Your task to perform on an android device: Open ESPN.com Image 0: 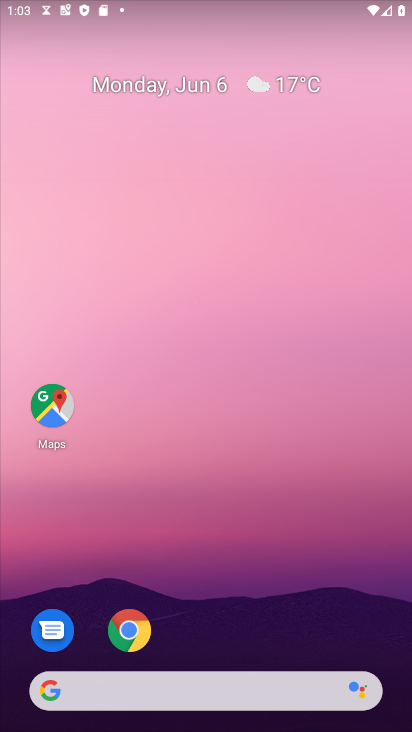
Step 0: click (114, 38)
Your task to perform on an android device: Open ESPN.com Image 1: 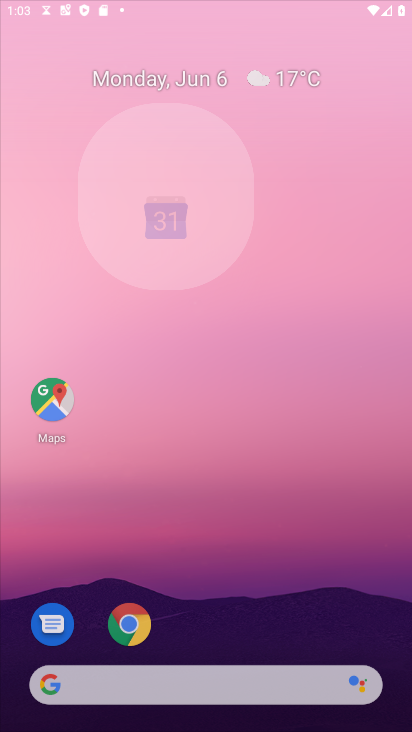
Step 1: drag from (279, 627) to (202, 120)
Your task to perform on an android device: Open ESPN.com Image 2: 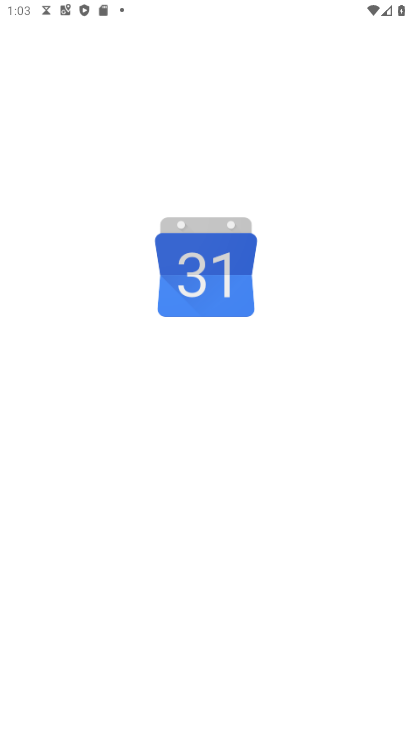
Step 2: drag from (306, 570) to (188, 58)
Your task to perform on an android device: Open ESPN.com Image 3: 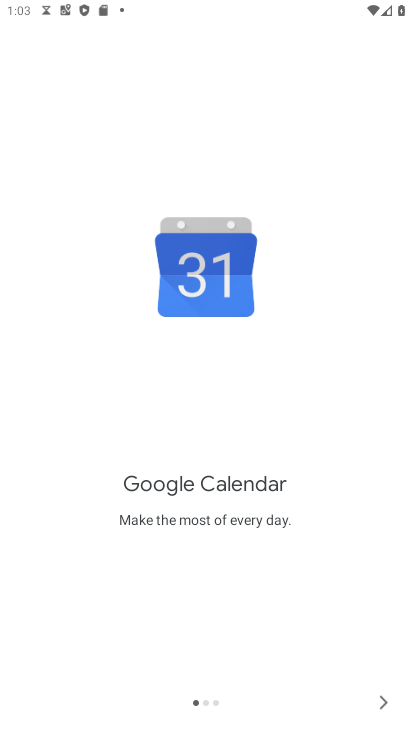
Step 3: click (378, 702)
Your task to perform on an android device: Open ESPN.com Image 4: 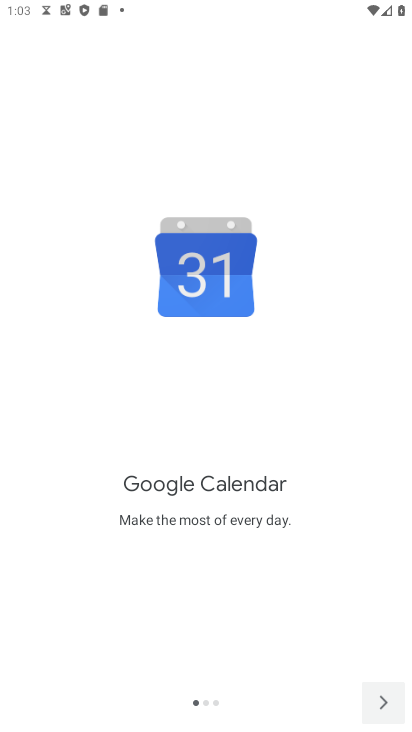
Step 4: click (379, 702)
Your task to perform on an android device: Open ESPN.com Image 5: 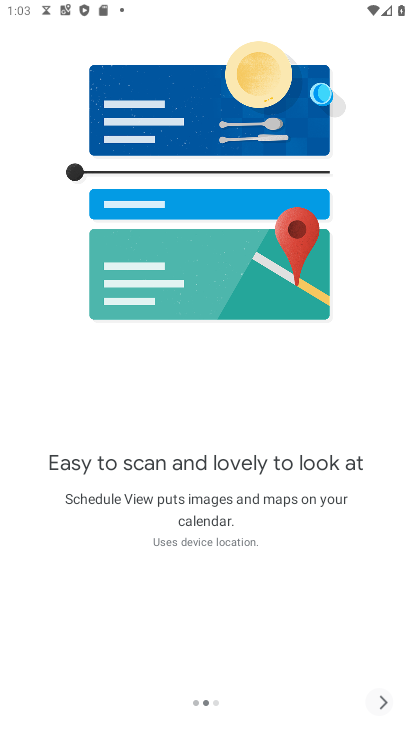
Step 5: click (379, 702)
Your task to perform on an android device: Open ESPN.com Image 6: 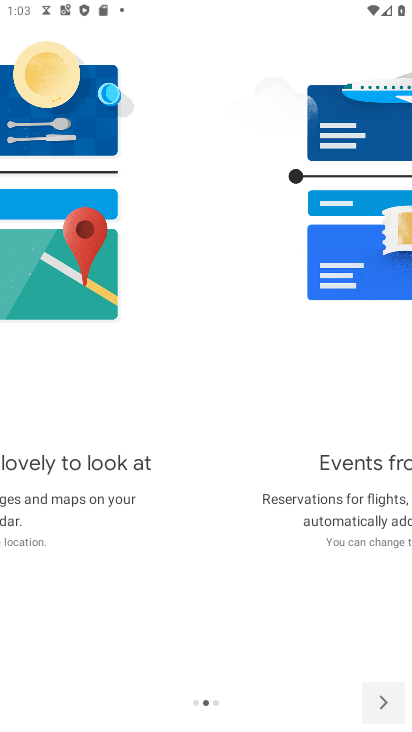
Step 6: click (380, 701)
Your task to perform on an android device: Open ESPN.com Image 7: 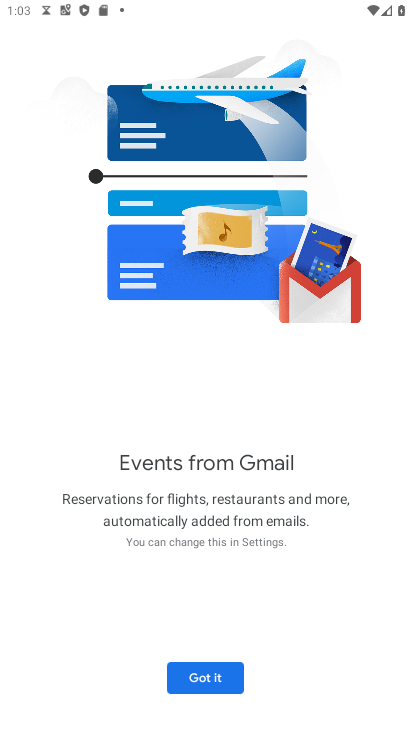
Step 7: click (383, 697)
Your task to perform on an android device: Open ESPN.com Image 8: 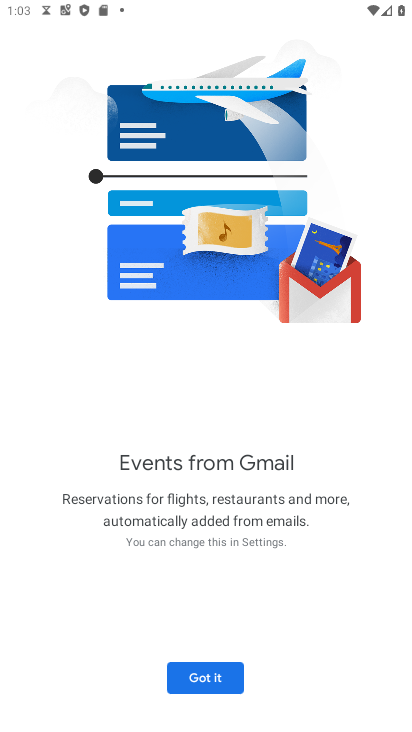
Step 8: click (383, 697)
Your task to perform on an android device: Open ESPN.com Image 9: 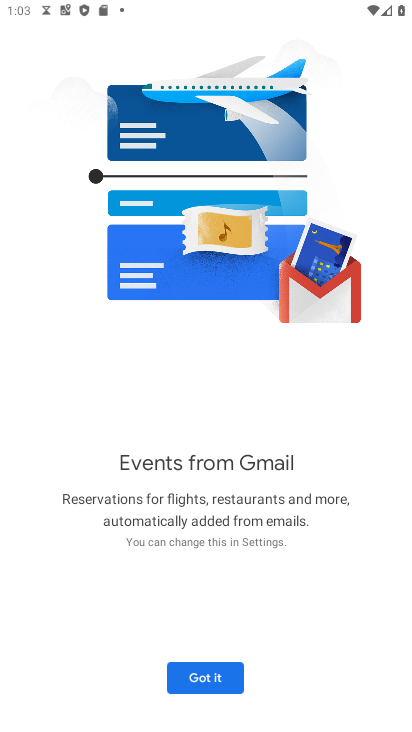
Step 9: click (211, 666)
Your task to perform on an android device: Open ESPN.com Image 10: 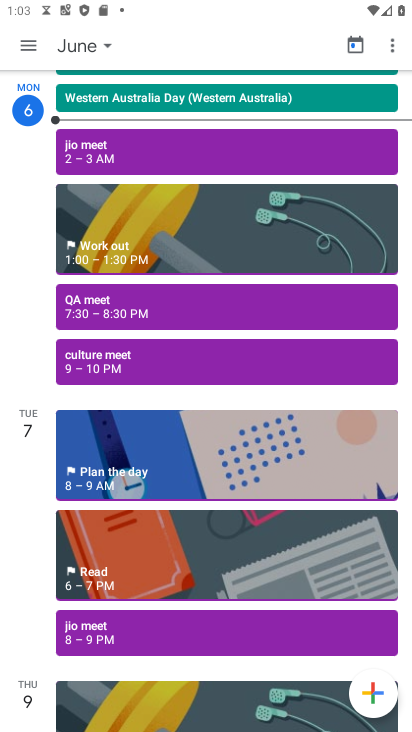
Step 10: press back button
Your task to perform on an android device: Open ESPN.com Image 11: 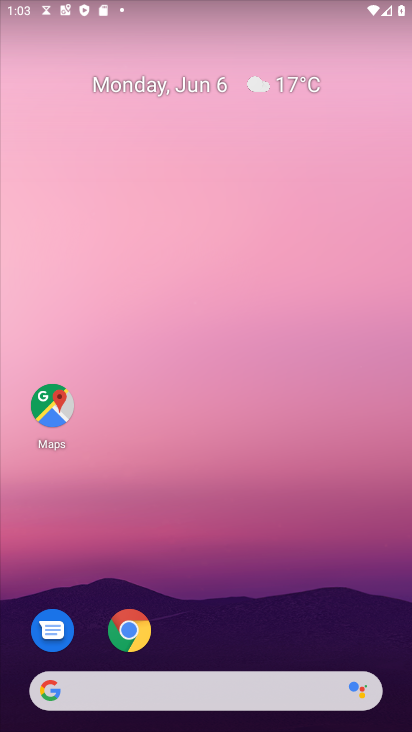
Step 11: drag from (191, 571) to (119, 0)
Your task to perform on an android device: Open ESPN.com Image 12: 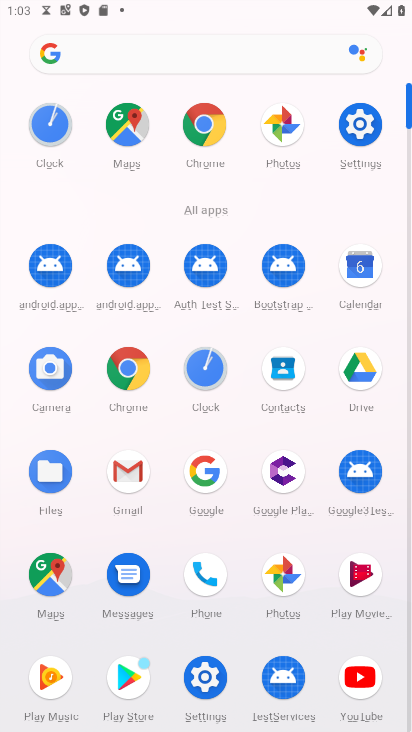
Step 12: click (203, 128)
Your task to perform on an android device: Open ESPN.com Image 13: 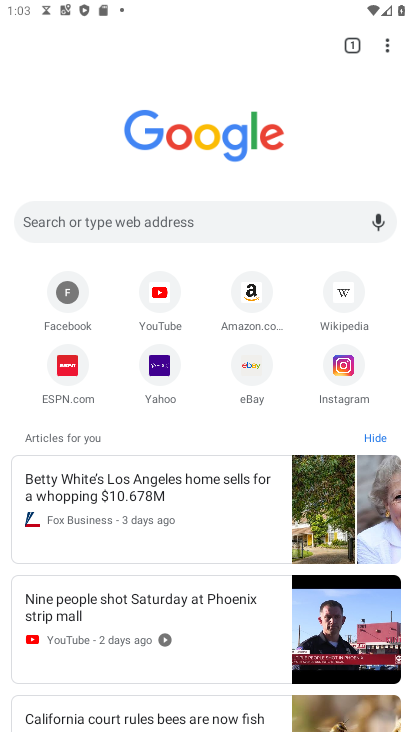
Step 13: click (66, 362)
Your task to perform on an android device: Open ESPN.com Image 14: 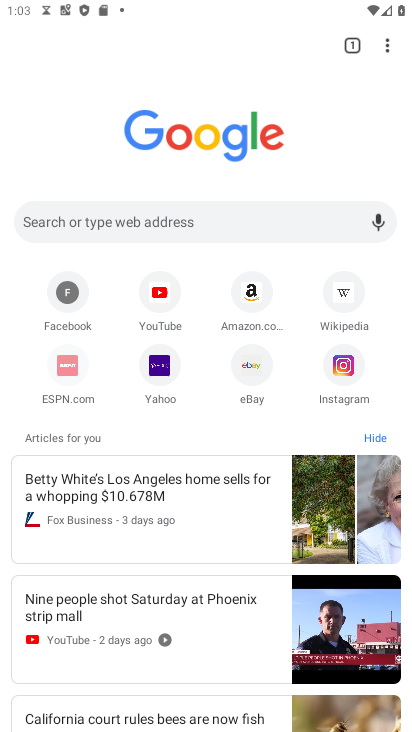
Step 14: click (74, 362)
Your task to perform on an android device: Open ESPN.com Image 15: 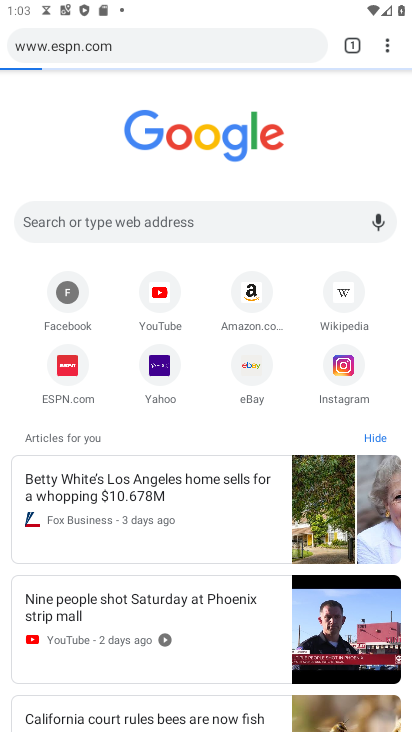
Step 15: click (74, 362)
Your task to perform on an android device: Open ESPN.com Image 16: 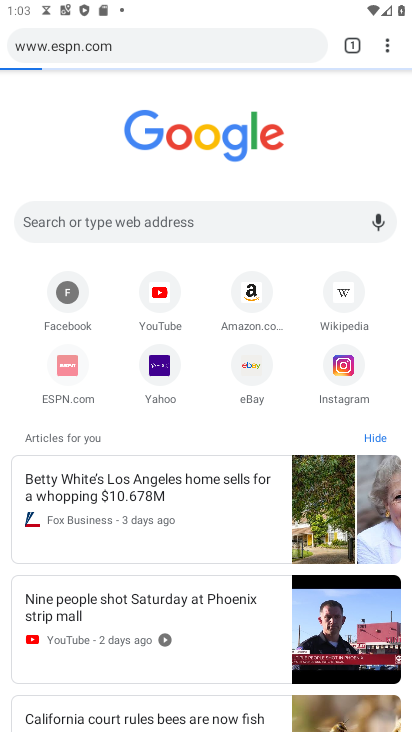
Step 16: click (69, 367)
Your task to perform on an android device: Open ESPN.com Image 17: 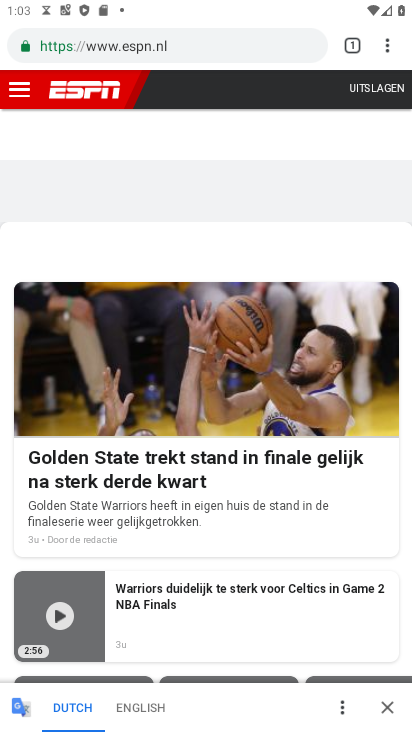
Step 17: task complete